Your task to perform on an android device: turn vacation reply on in the gmail app Image 0: 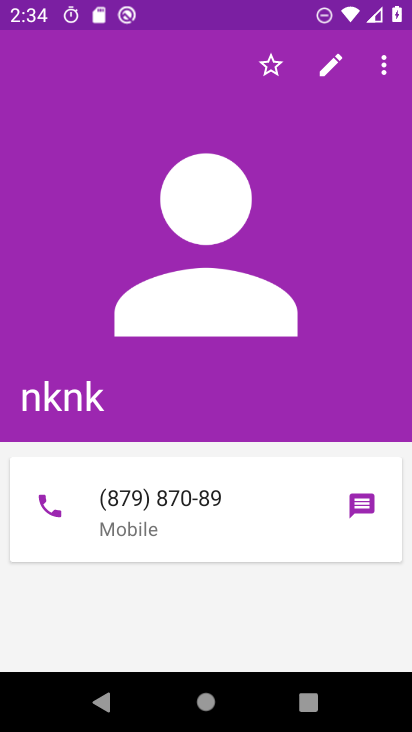
Step 0: press home button
Your task to perform on an android device: turn vacation reply on in the gmail app Image 1: 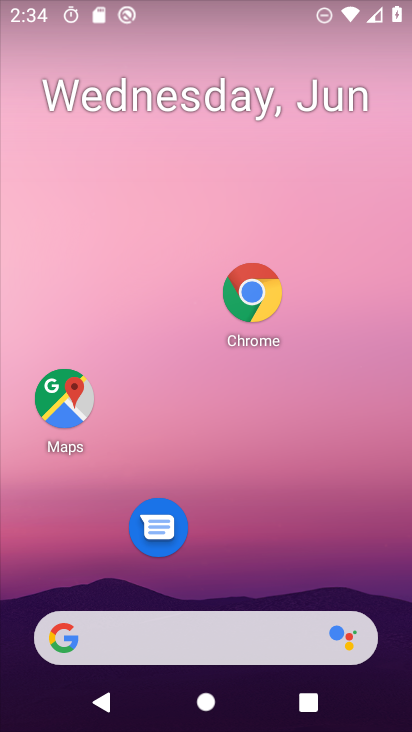
Step 1: drag from (264, 542) to (267, 316)
Your task to perform on an android device: turn vacation reply on in the gmail app Image 2: 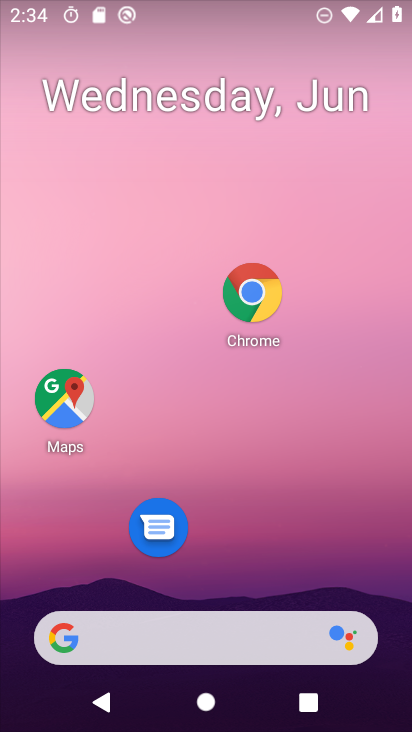
Step 2: drag from (240, 596) to (212, 195)
Your task to perform on an android device: turn vacation reply on in the gmail app Image 3: 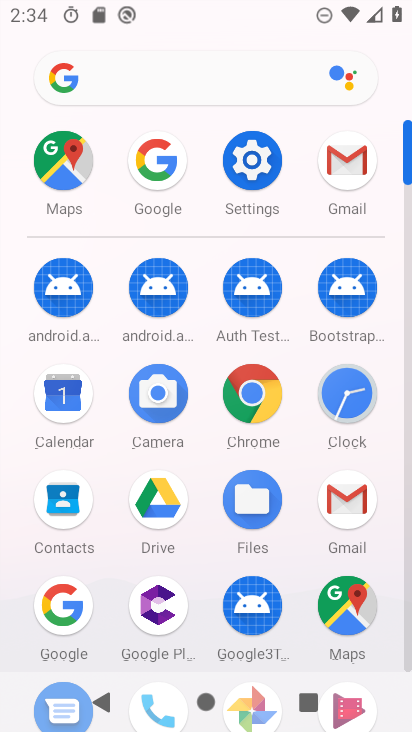
Step 3: click (351, 506)
Your task to perform on an android device: turn vacation reply on in the gmail app Image 4: 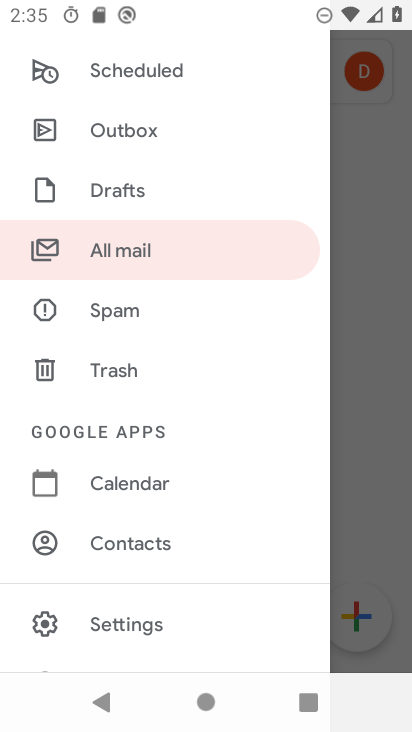
Step 4: click (141, 622)
Your task to perform on an android device: turn vacation reply on in the gmail app Image 5: 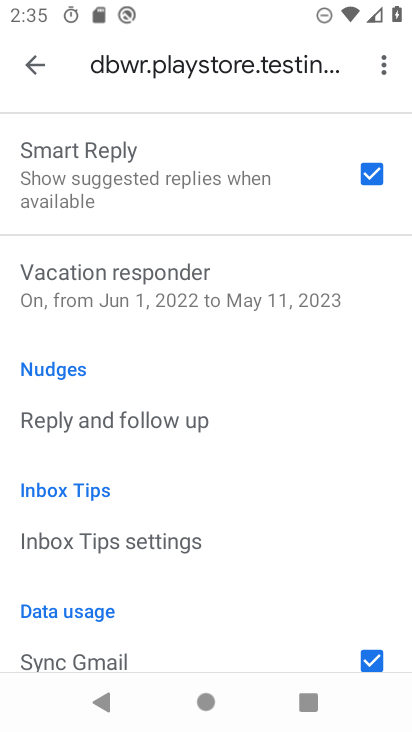
Step 5: drag from (136, 528) to (85, 194)
Your task to perform on an android device: turn vacation reply on in the gmail app Image 6: 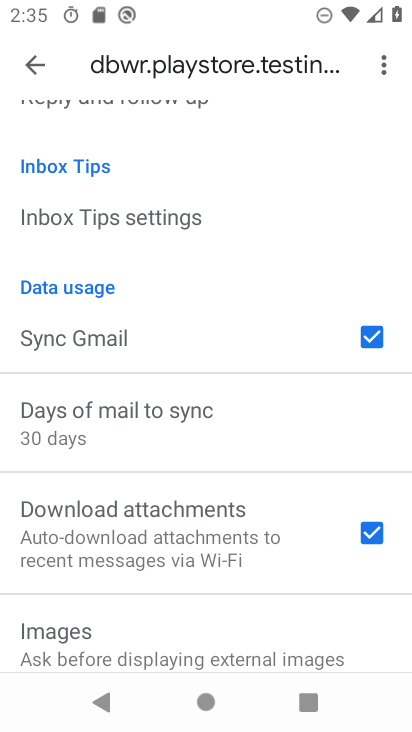
Step 6: click (168, 342)
Your task to perform on an android device: turn vacation reply on in the gmail app Image 7: 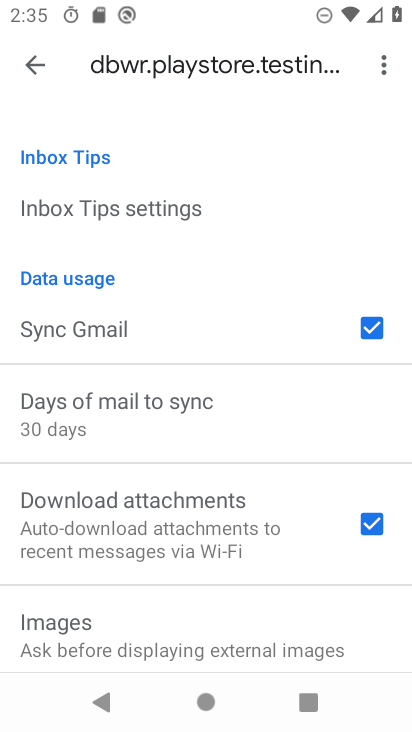
Step 7: drag from (122, 522) to (124, 286)
Your task to perform on an android device: turn vacation reply on in the gmail app Image 8: 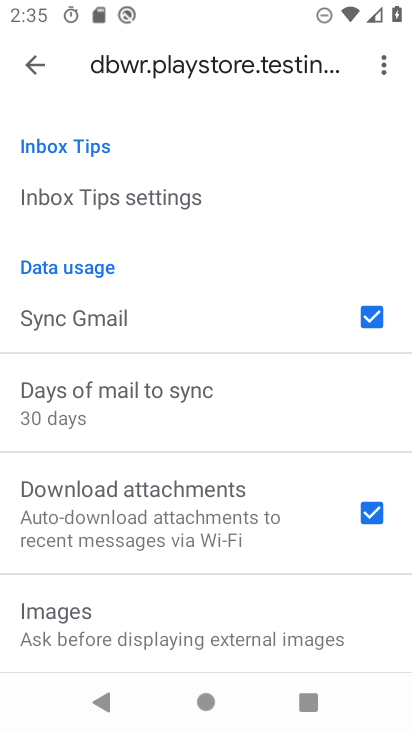
Step 8: drag from (152, 488) to (124, 200)
Your task to perform on an android device: turn vacation reply on in the gmail app Image 9: 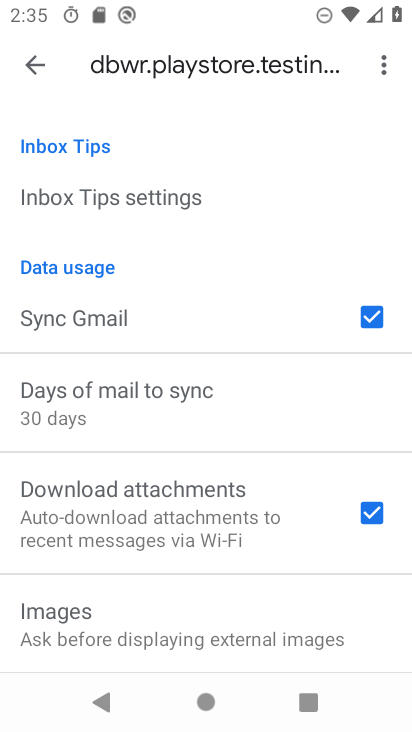
Step 9: drag from (149, 564) to (137, 240)
Your task to perform on an android device: turn vacation reply on in the gmail app Image 10: 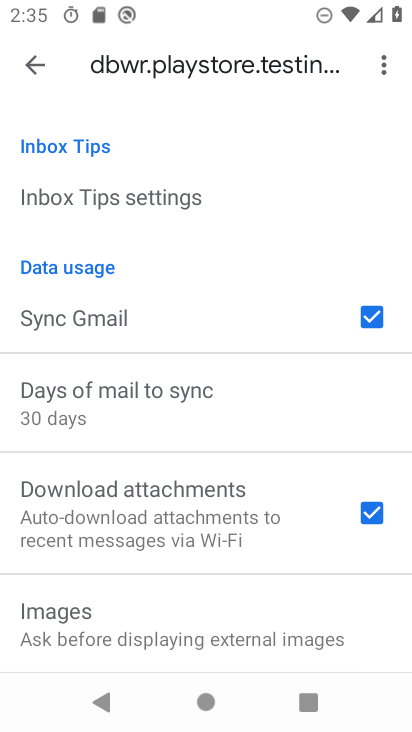
Step 10: drag from (208, 456) to (204, 317)
Your task to perform on an android device: turn vacation reply on in the gmail app Image 11: 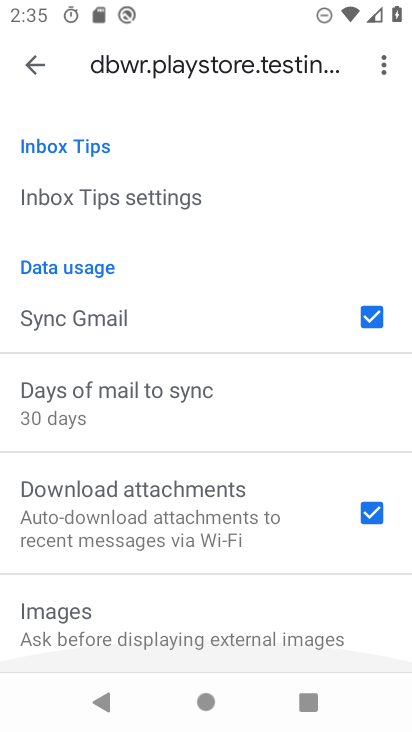
Step 11: drag from (231, 560) to (283, 309)
Your task to perform on an android device: turn vacation reply on in the gmail app Image 12: 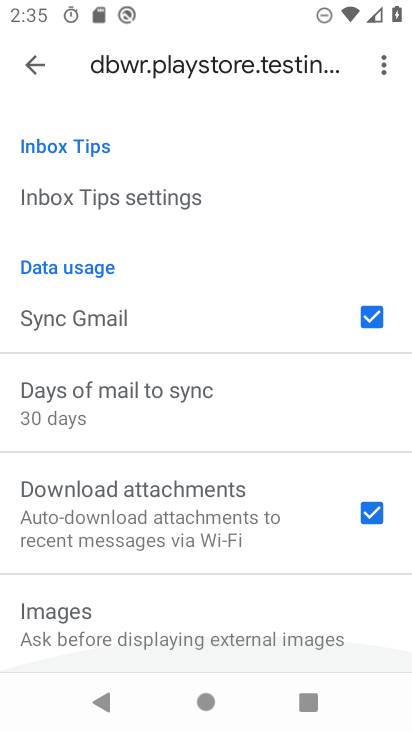
Step 12: click (323, 305)
Your task to perform on an android device: turn vacation reply on in the gmail app Image 13: 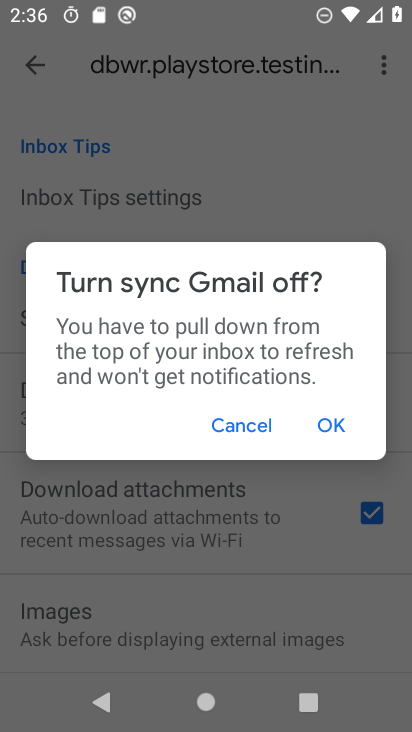
Step 13: click (333, 425)
Your task to perform on an android device: turn vacation reply on in the gmail app Image 14: 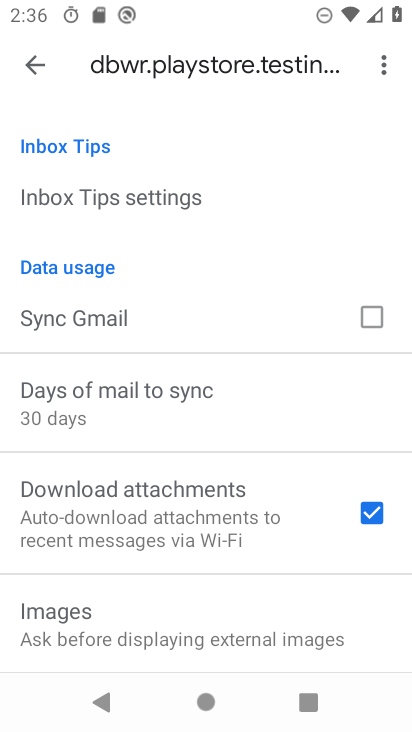
Step 14: drag from (157, 578) to (150, 260)
Your task to perform on an android device: turn vacation reply on in the gmail app Image 15: 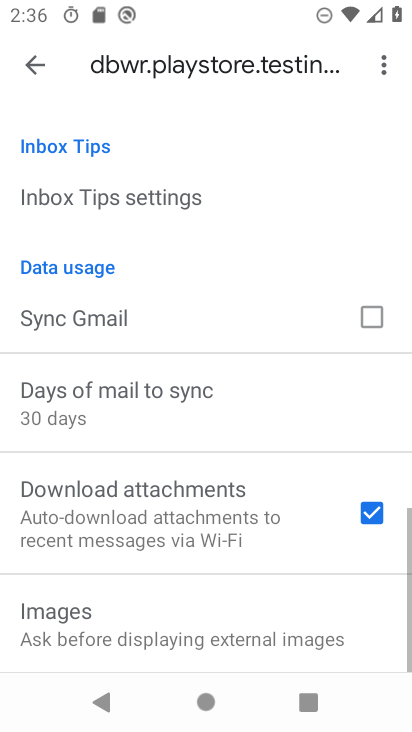
Step 15: drag from (170, 464) to (199, 153)
Your task to perform on an android device: turn vacation reply on in the gmail app Image 16: 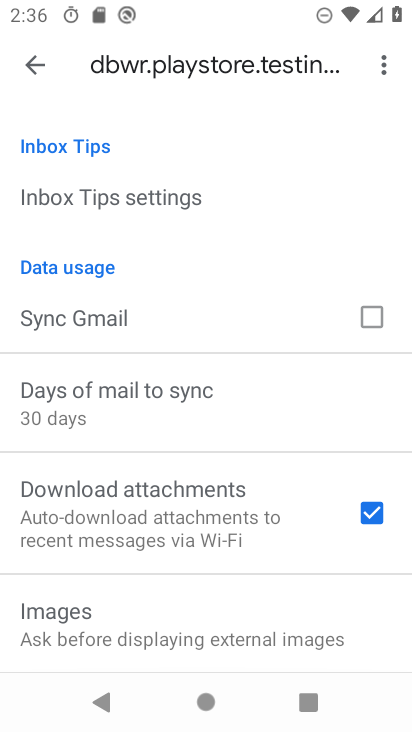
Step 16: drag from (188, 487) to (185, 548)
Your task to perform on an android device: turn vacation reply on in the gmail app Image 17: 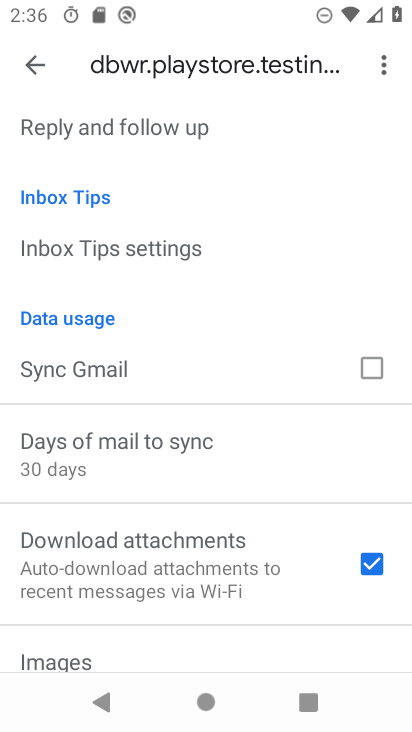
Step 17: drag from (224, 449) to (207, 660)
Your task to perform on an android device: turn vacation reply on in the gmail app Image 18: 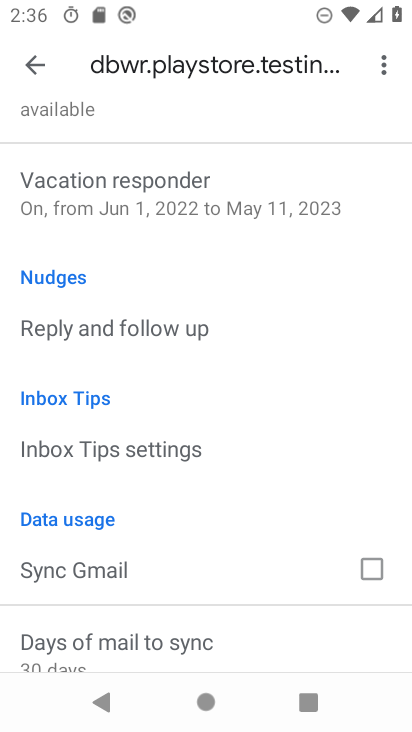
Step 18: drag from (201, 413) to (201, 583)
Your task to perform on an android device: turn vacation reply on in the gmail app Image 19: 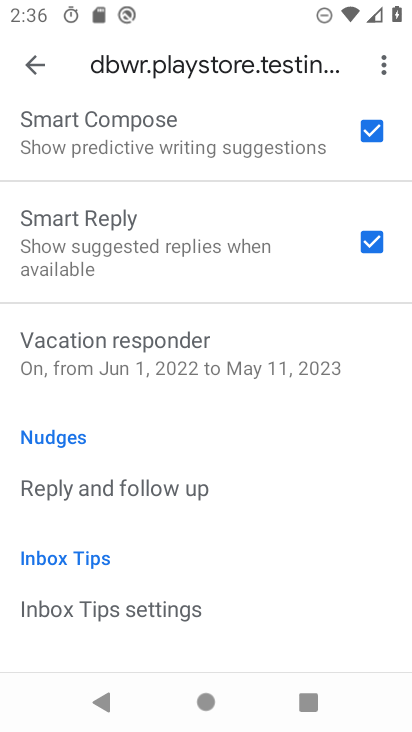
Step 19: click (218, 352)
Your task to perform on an android device: turn vacation reply on in the gmail app Image 20: 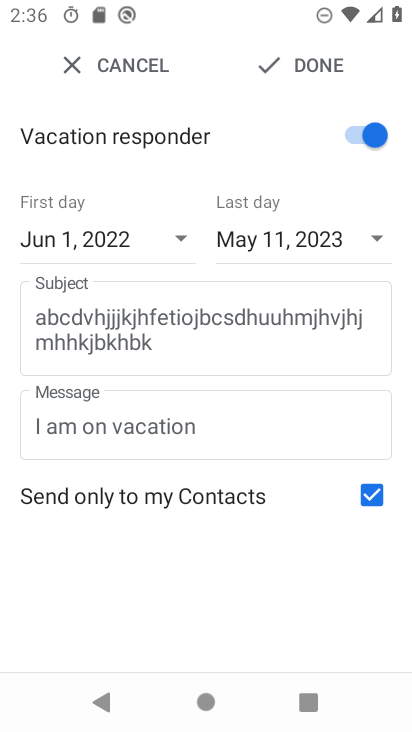
Step 20: task complete